Your task to perform on an android device: toggle notifications settings in the gmail app Image 0: 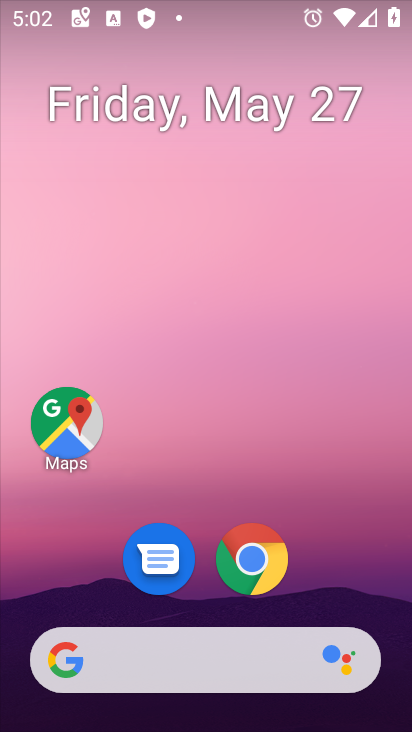
Step 0: drag from (213, 680) to (260, 91)
Your task to perform on an android device: toggle notifications settings in the gmail app Image 1: 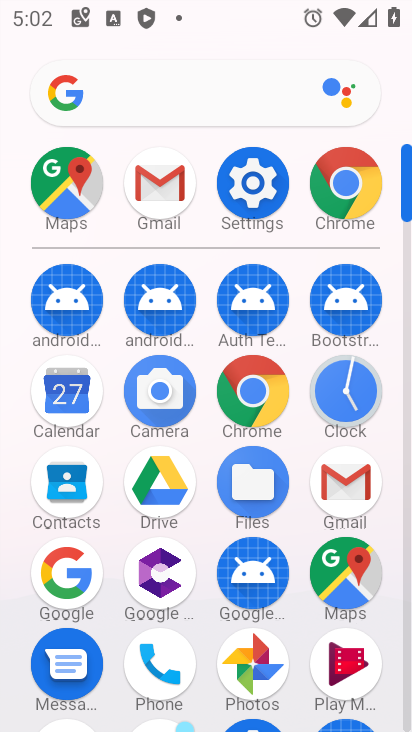
Step 1: click (334, 488)
Your task to perform on an android device: toggle notifications settings in the gmail app Image 2: 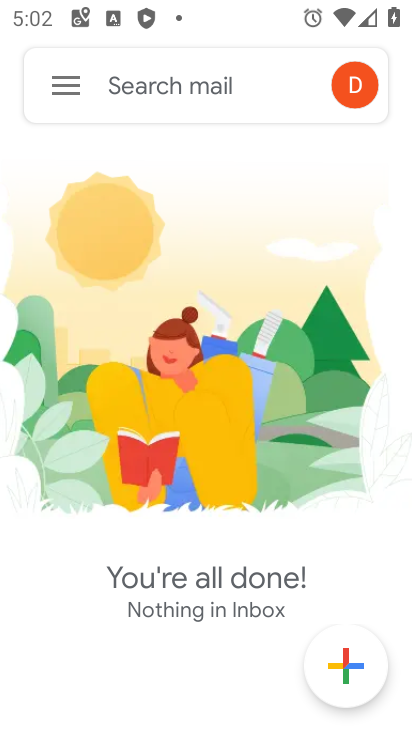
Step 2: click (69, 88)
Your task to perform on an android device: toggle notifications settings in the gmail app Image 3: 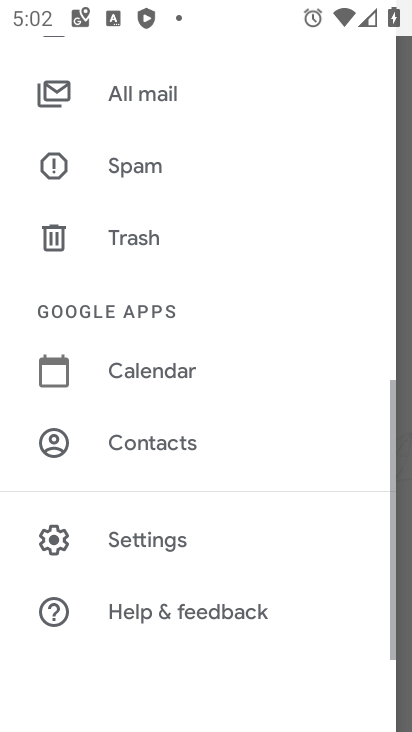
Step 3: click (212, 547)
Your task to perform on an android device: toggle notifications settings in the gmail app Image 4: 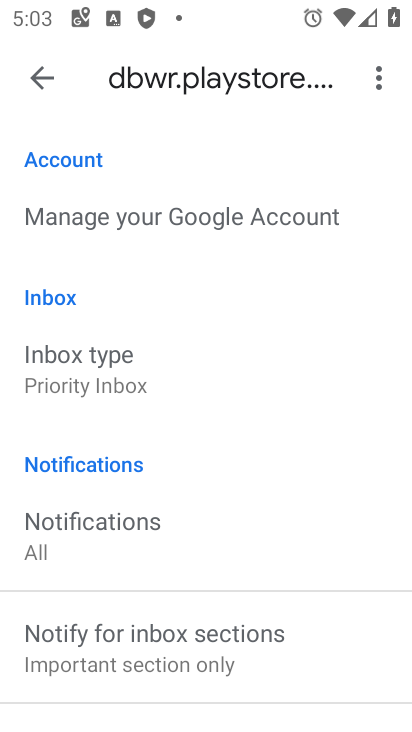
Step 4: drag from (201, 650) to (251, 125)
Your task to perform on an android device: toggle notifications settings in the gmail app Image 5: 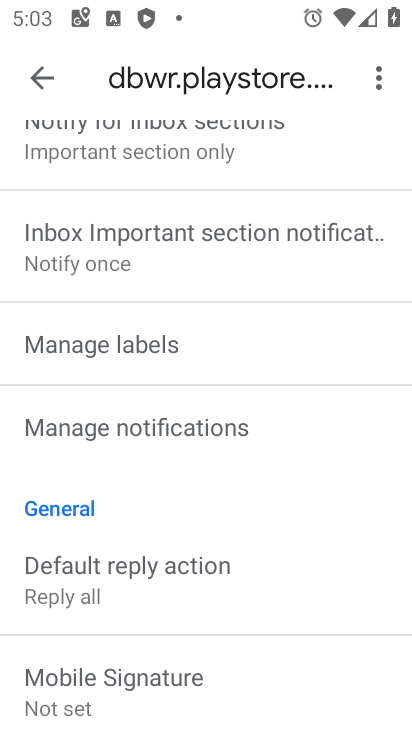
Step 5: click (176, 421)
Your task to perform on an android device: toggle notifications settings in the gmail app Image 6: 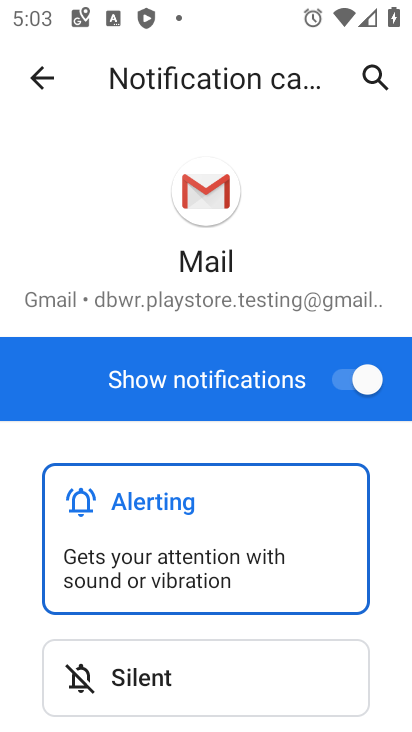
Step 6: task complete